Your task to perform on an android device: Open Google Maps and go to "Timeline" Image 0: 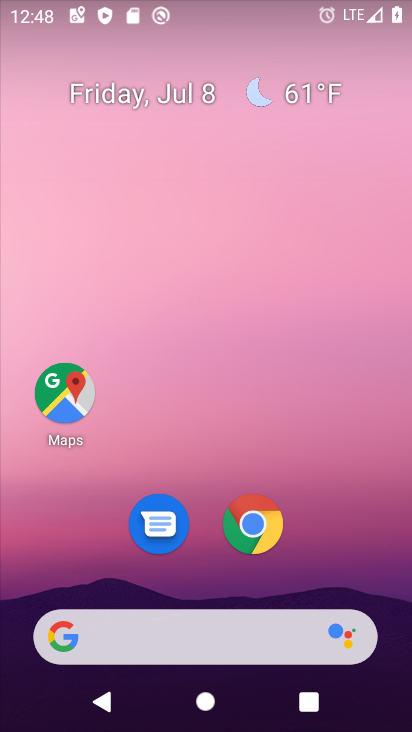
Step 0: click (55, 398)
Your task to perform on an android device: Open Google Maps and go to "Timeline" Image 1: 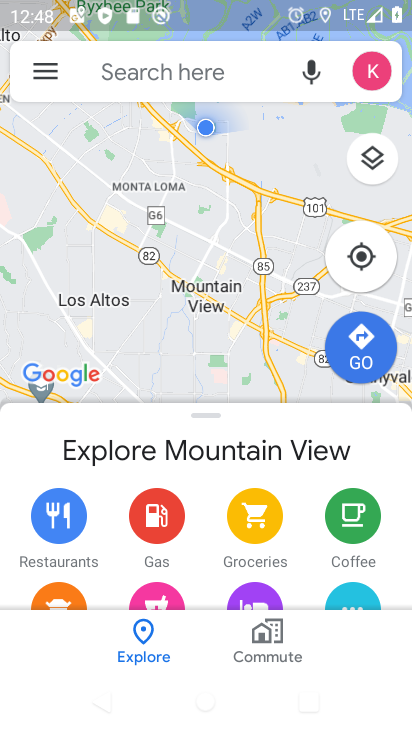
Step 1: click (55, 398)
Your task to perform on an android device: Open Google Maps and go to "Timeline" Image 2: 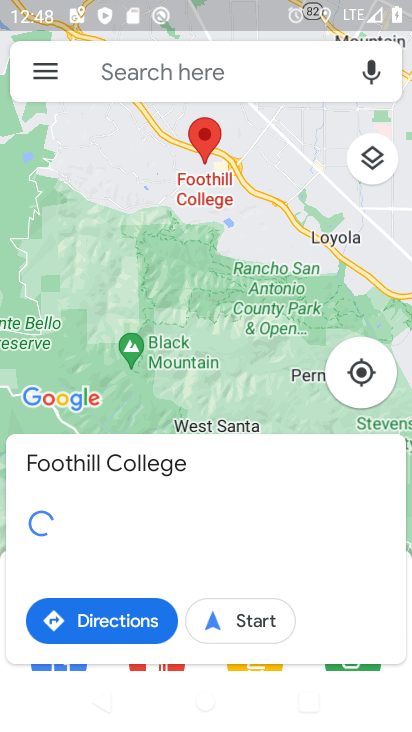
Step 2: click (75, 388)
Your task to perform on an android device: Open Google Maps and go to "Timeline" Image 3: 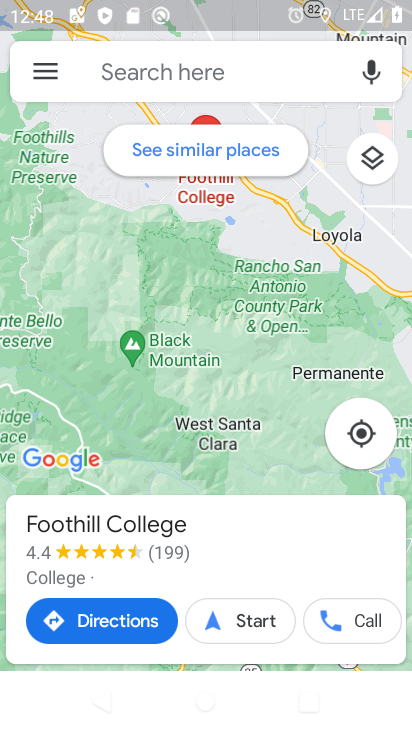
Step 3: click (50, 73)
Your task to perform on an android device: Open Google Maps and go to "Timeline" Image 4: 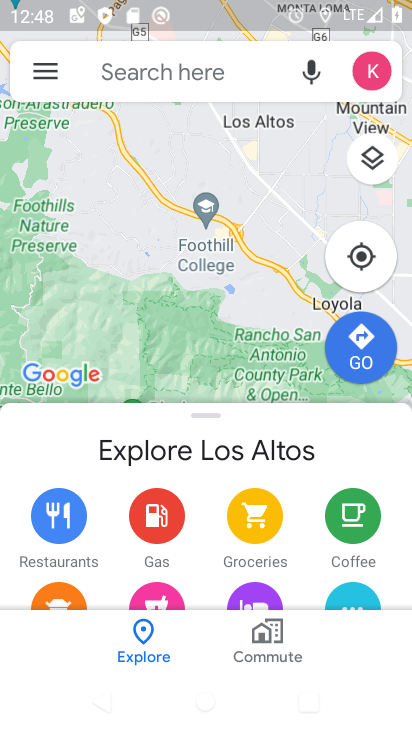
Step 4: click (50, 73)
Your task to perform on an android device: Open Google Maps and go to "Timeline" Image 5: 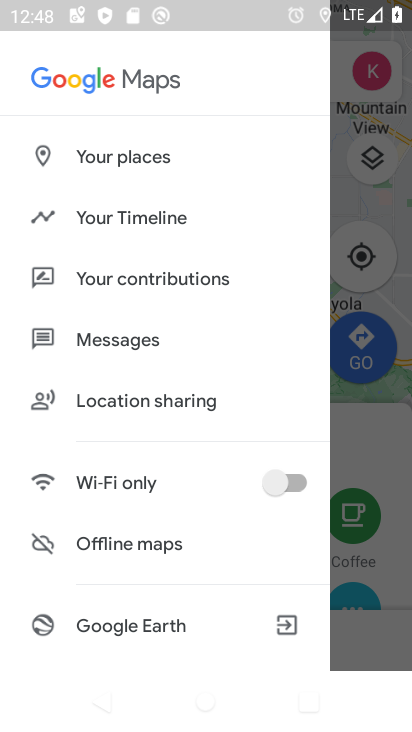
Step 5: click (115, 222)
Your task to perform on an android device: Open Google Maps and go to "Timeline" Image 6: 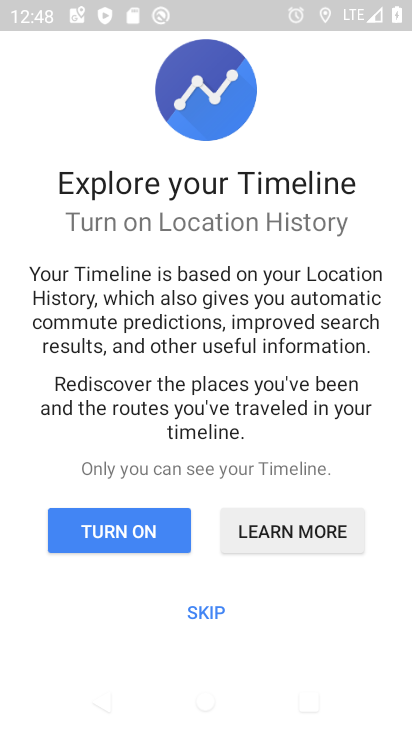
Step 6: click (209, 617)
Your task to perform on an android device: Open Google Maps and go to "Timeline" Image 7: 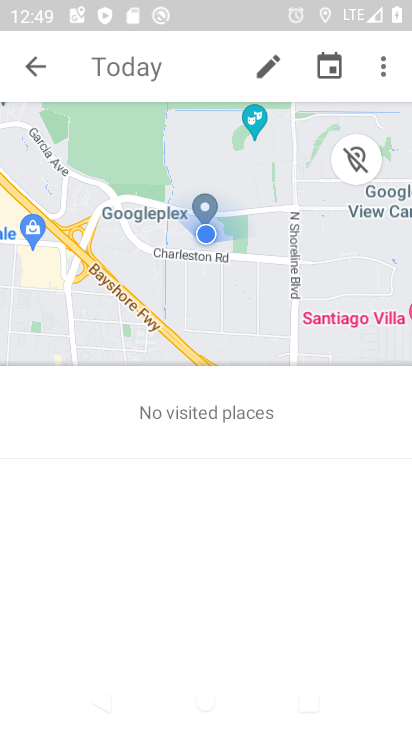
Step 7: task complete